Your task to perform on an android device: set an alarm Image 0: 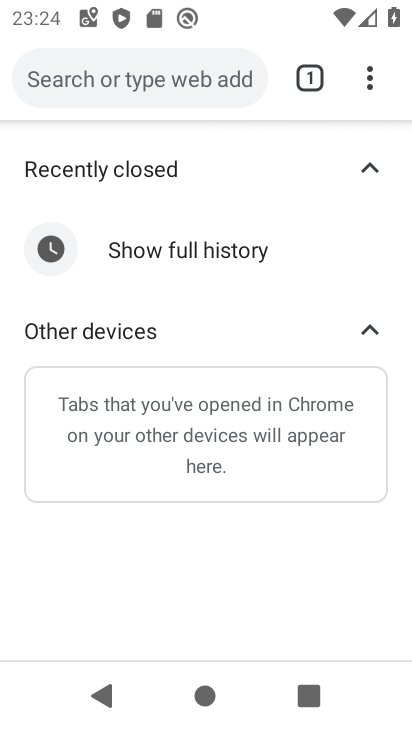
Step 0: press home button
Your task to perform on an android device: set an alarm Image 1: 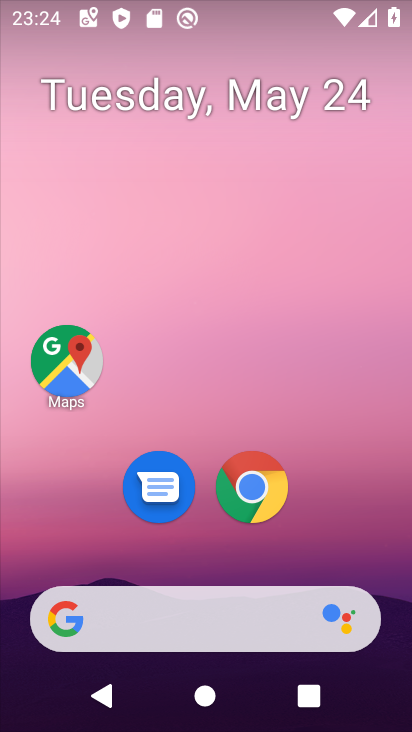
Step 1: drag from (187, 557) to (256, 32)
Your task to perform on an android device: set an alarm Image 2: 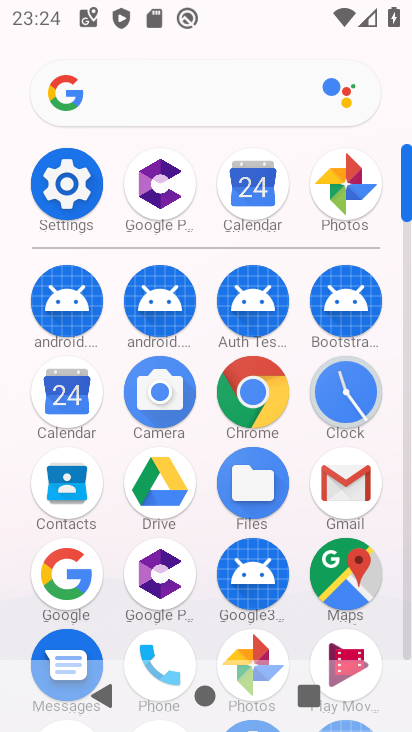
Step 2: click (352, 383)
Your task to perform on an android device: set an alarm Image 3: 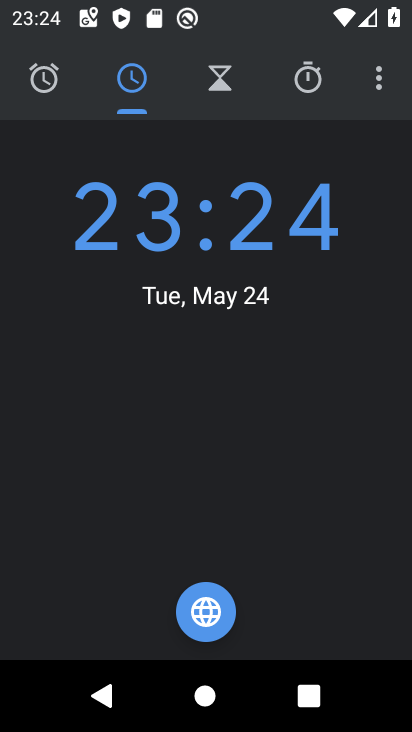
Step 3: click (31, 71)
Your task to perform on an android device: set an alarm Image 4: 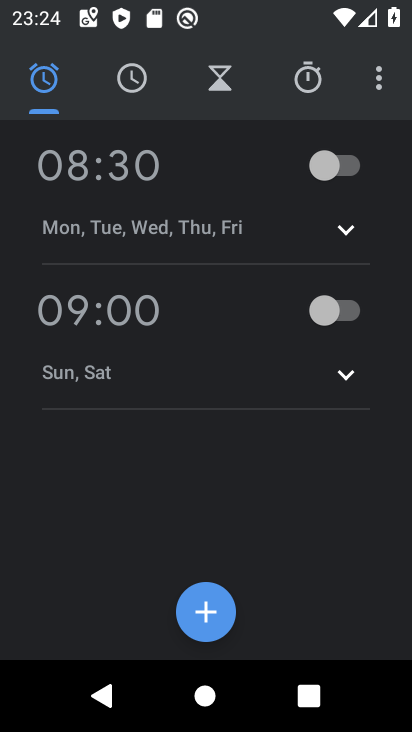
Step 4: click (323, 171)
Your task to perform on an android device: set an alarm Image 5: 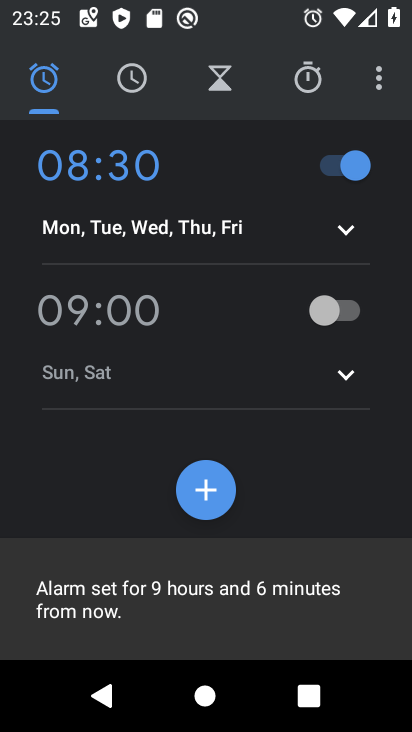
Step 5: task complete